Your task to perform on an android device: Add "alienware aurora" to the cart on target, then select checkout. Image 0: 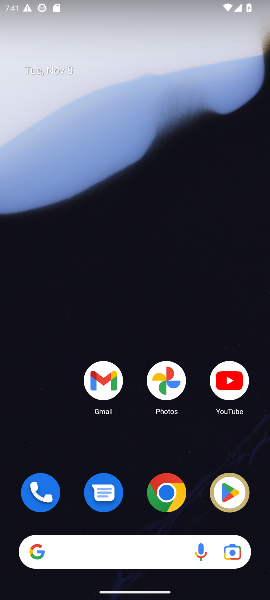
Step 0: click (167, 497)
Your task to perform on an android device: Add "alienware aurora" to the cart on target, then select checkout. Image 1: 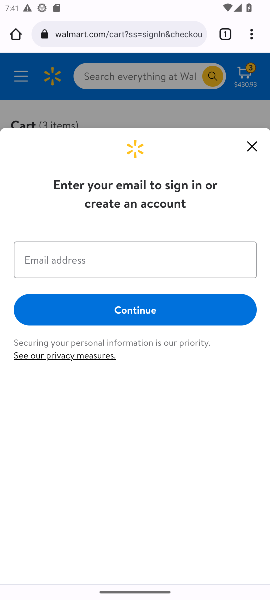
Step 1: click (140, 38)
Your task to perform on an android device: Add "alienware aurora" to the cart on target, then select checkout. Image 2: 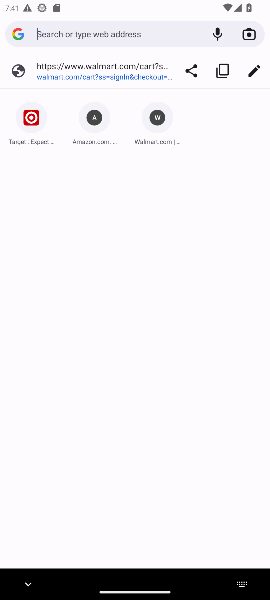
Step 2: type "target"
Your task to perform on an android device: Add "alienware aurora" to the cart on target, then select checkout. Image 3: 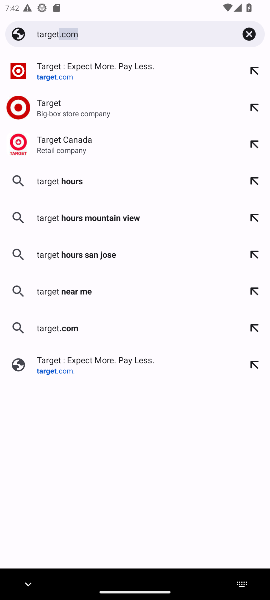
Step 3: press enter
Your task to perform on an android device: Add "alienware aurora" to the cart on target, then select checkout. Image 4: 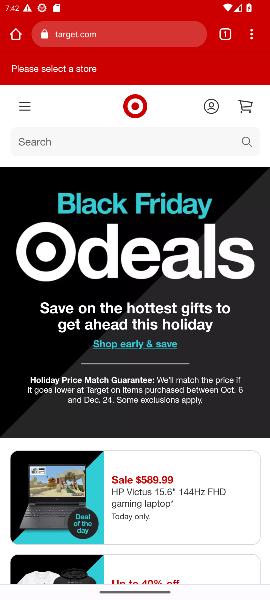
Step 4: click (112, 144)
Your task to perform on an android device: Add "alienware aurora" to the cart on target, then select checkout. Image 5: 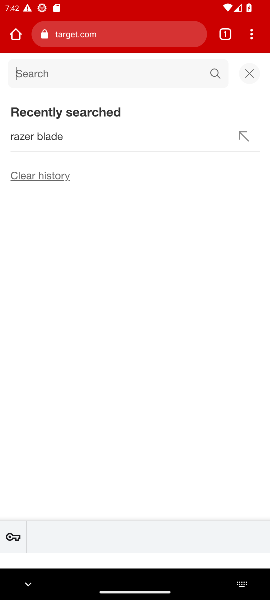
Step 5: type "alienware aurora"
Your task to perform on an android device: Add "alienware aurora" to the cart on target, then select checkout. Image 6: 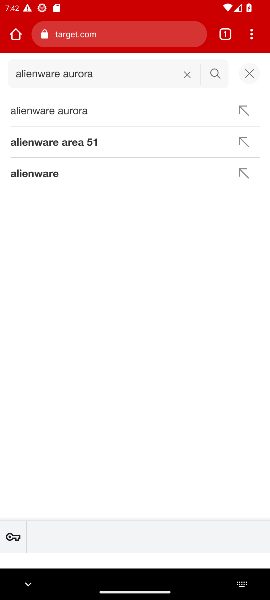
Step 6: press enter
Your task to perform on an android device: Add "alienware aurora" to the cart on target, then select checkout. Image 7: 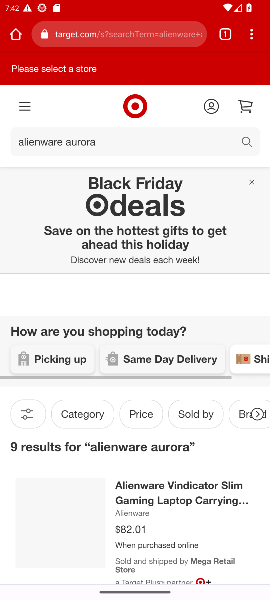
Step 7: drag from (164, 430) to (210, 226)
Your task to perform on an android device: Add "alienware aurora" to the cart on target, then select checkout. Image 8: 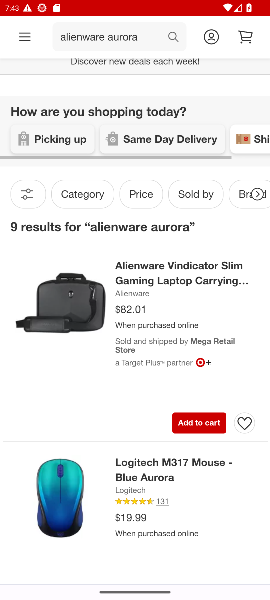
Step 8: click (76, 305)
Your task to perform on an android device: Add "alienware aurora" to the cart on target, then select checkout. Image 9: 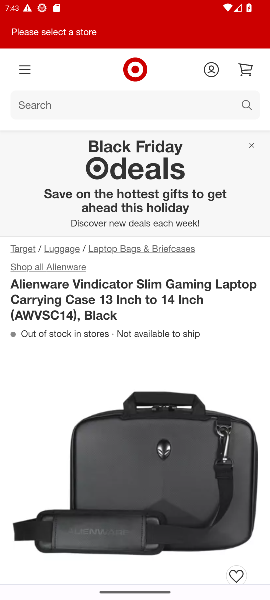
Step 9: drag from (145, 490) to (145, 251)
Your task to perform on an android device: Add "alienware aurora" to the cart on target, then select checkout. Image 10: 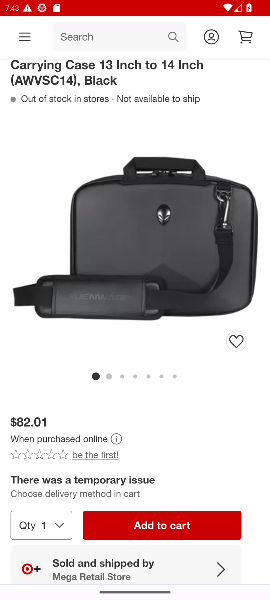
Step 10: click (154, 525)
Your task to perform on an android device: Add "alienware aurora" to the cart on target, then select checkout. Image 11: 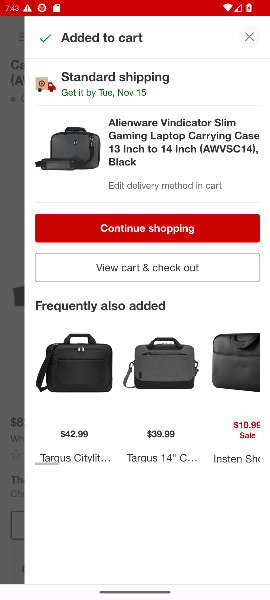
Step 11: click (147, 266)
Your task to perform on an android device: Add "alienware aurora" to the cart on target, then select checkout. Image 12: 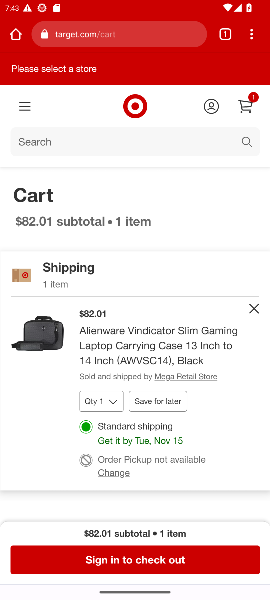
Step 12: click (171, 570)
Your task to perform on an android device: Add "alienware aurora" to the cart on target, then select checkout. Image 13: 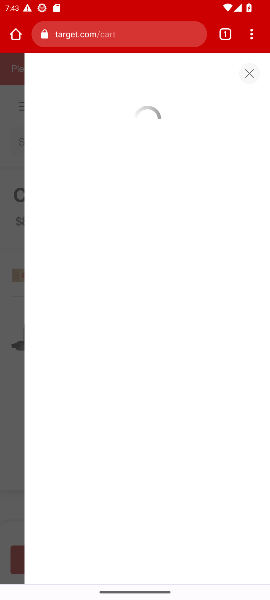
Step 13: task complete